Your task to perform on an android device: turn off location history Image 0: 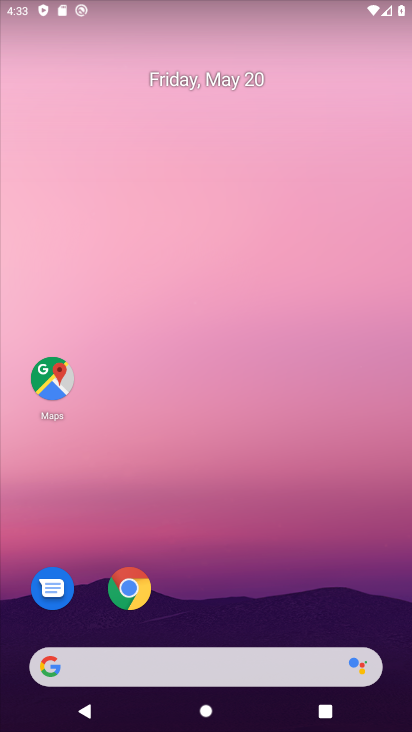
Step 0: drag from (217, 567) to (207, 268)
Your task to perform on an android device: turn off location history Image 1: 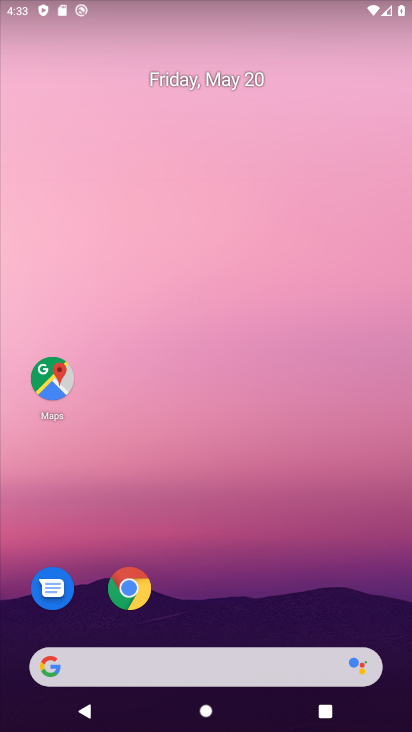
Step 1: drag from (241, 593) to (200, 311)
Your task to perform on an android device: turn off location history Image 2: 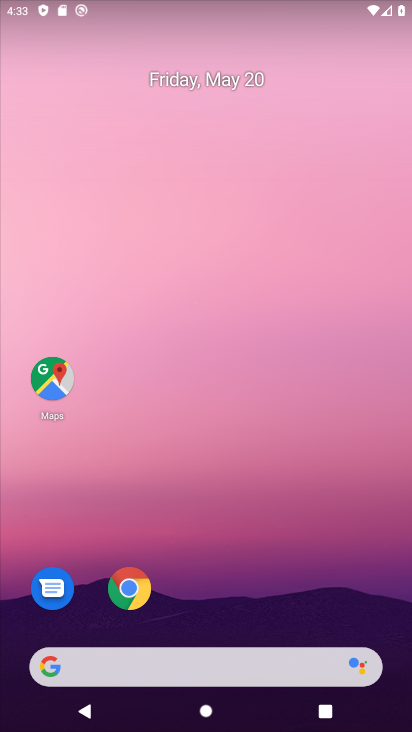
Step 2: click (192, 211)
Your task to perform on an android device: turn off location history Image 3: 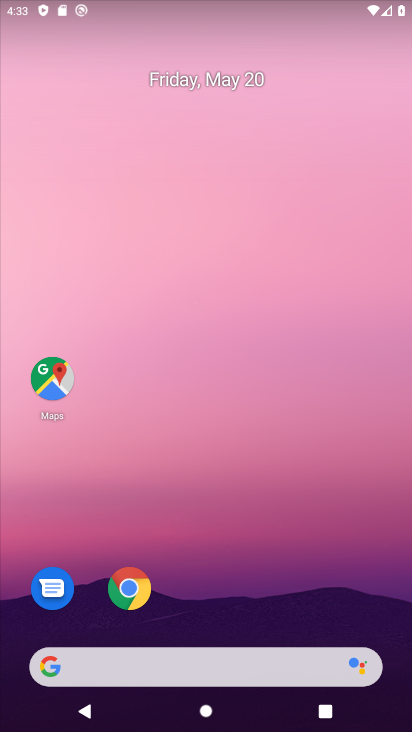
Step 3: drag from (248, 531) to (194, 0)
Your task to perform on an android device: turn off location history Image 4: 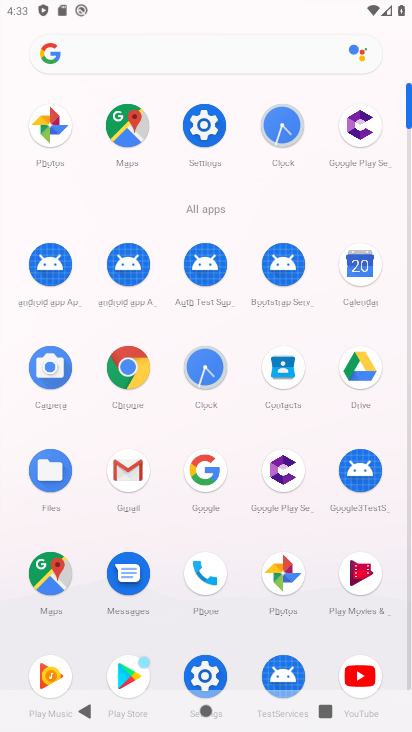
Step 4: click (200, 142)
Your task to perform on an android device: turn off location history Image 5: 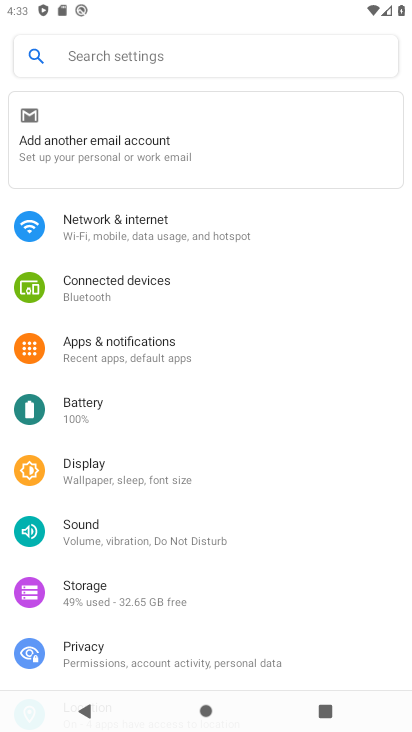
Step 5: drag from (90, 597) to (88, 334)
Your task to perform on an android device: turn off location history Image 6: 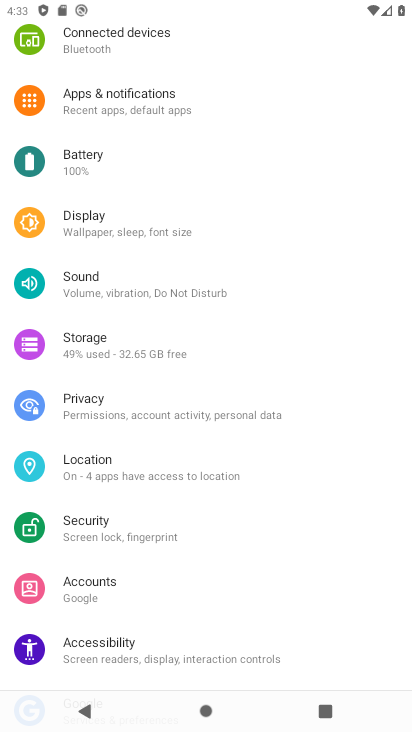
Step 6: click (98, 467)
Your task to perform on an android device: turn off location history Image 7: 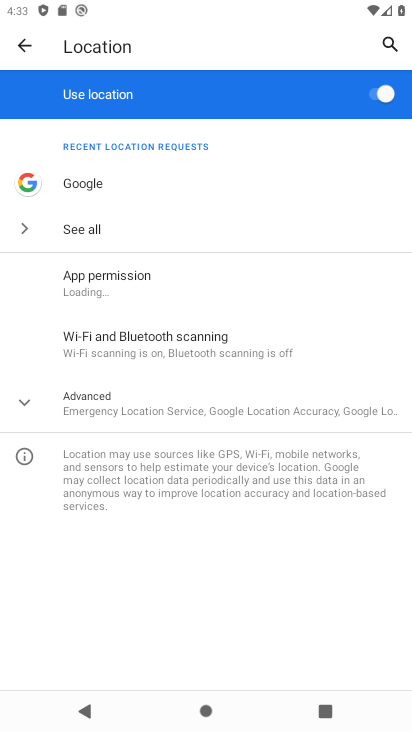
Step 7: click (146, 416)
Your task to perform on an android device: turn off location history Image 8: 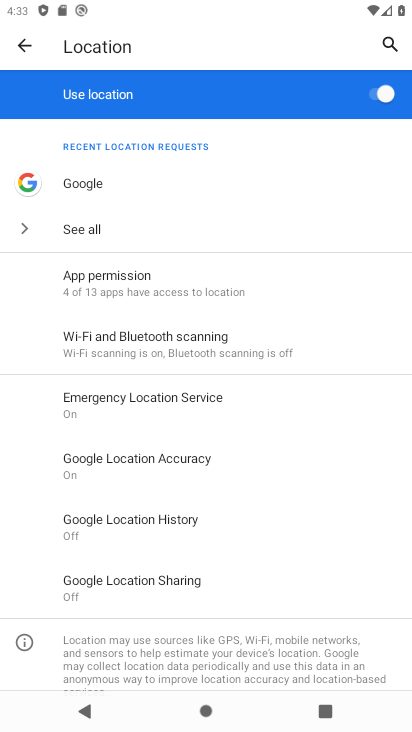
Step 8: task complete